Your task to perform on an android device: turn off data saver in the chrome app Image 0: 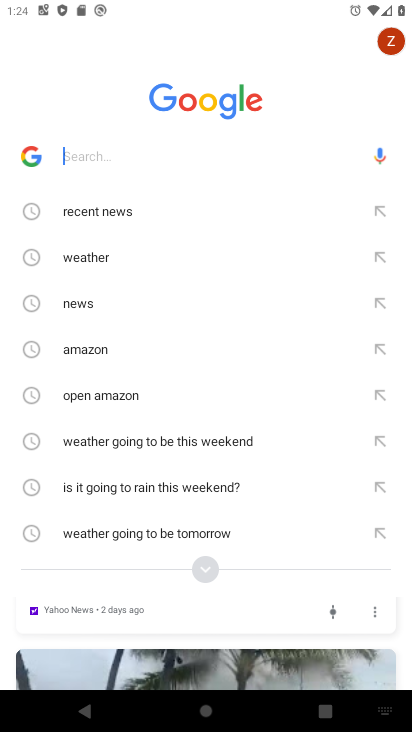
Step 0: press home button
Your task to perform on an android device: turn off data saver in the chrome app Image 1: 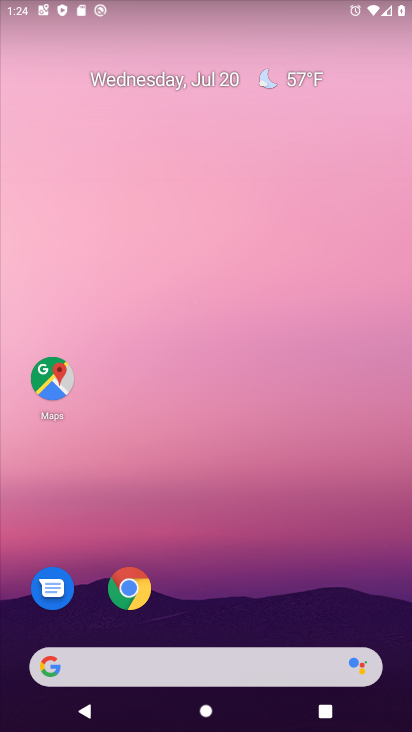
Step 1: click (125, 604)
Your task to perform on an android device: turn off data saver in the chrome app Image 2: 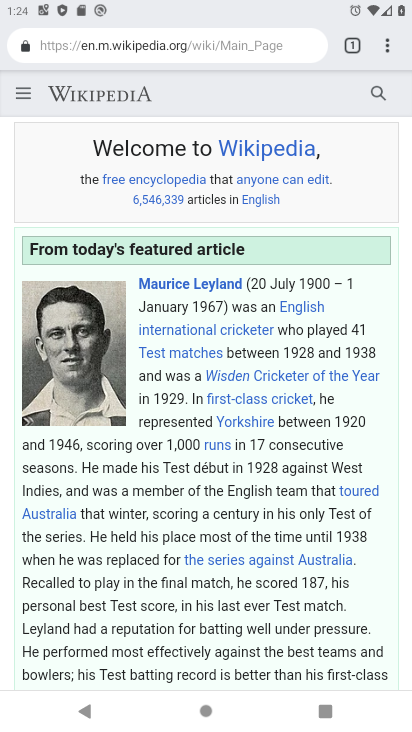
Step 2: press home button
Your task to perform on an android device: turn off data saver in the chrome app Image 3: 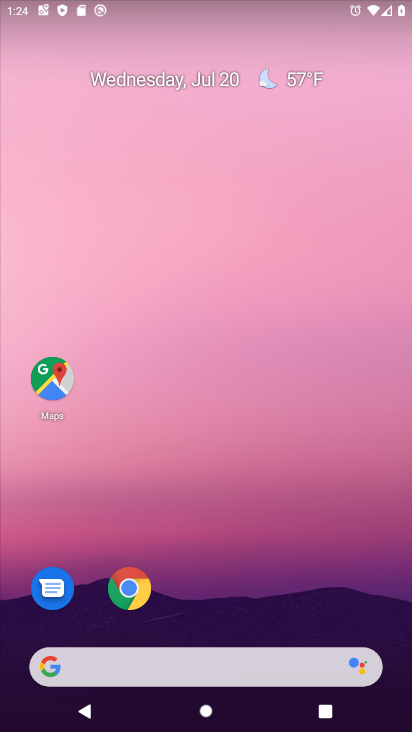
Step 3: click (122, 605)
Your task to perform on an android device: turn off data saver in the chrome app Image 4: 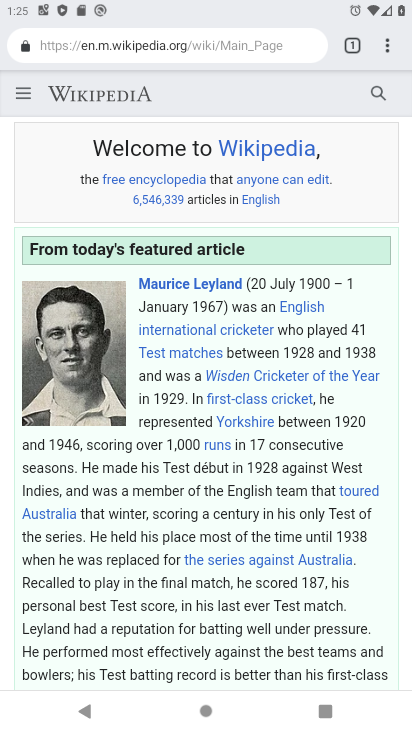
Step 4: press home button
Your task to perform on an android device: turn off data saver in the chrome app Image 5: 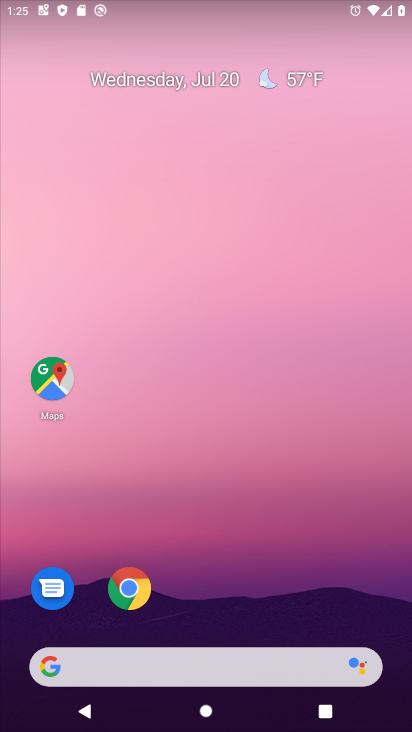
Step 5: click (123, 597)
Your task to perform on an android device: turn off data saver in the chrome app Image 6: 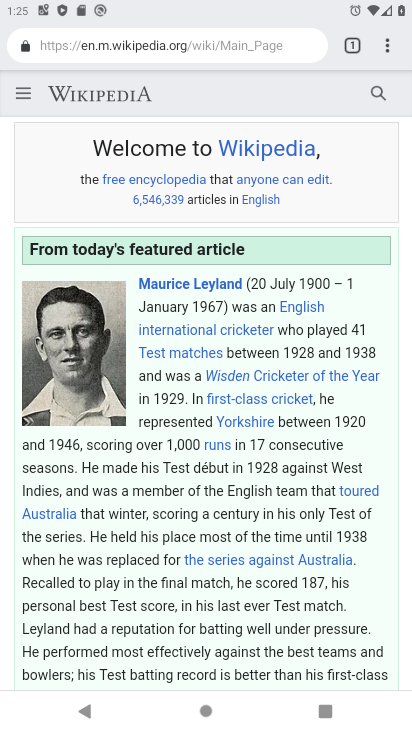
Step 6: click (382, 46)
Your task to perform on an android device: turn off data saver in the chrome app Image 7: 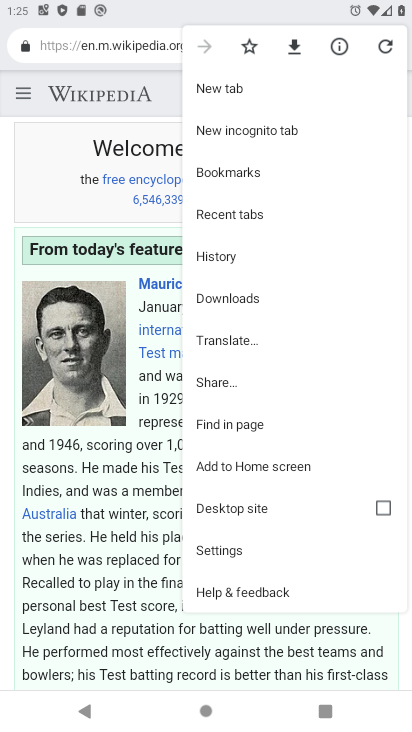
Step 7: click (214, 547)
Your task to perform on an android device: turn off data saver in the chrome app Image 8: 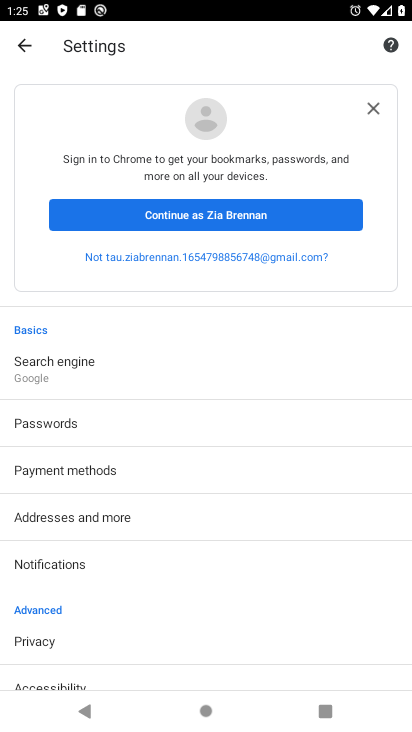
Step 8: drag from (15, 533) to (116, 135)
Your task to perform on an android device: turn off data saver in the chrome app Image 9: 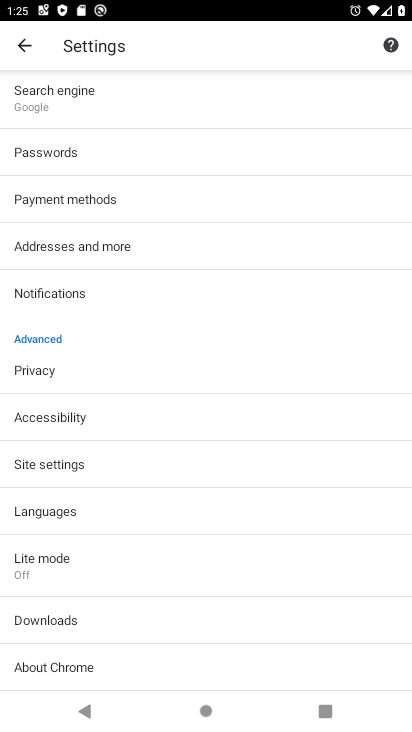
Step 9: click (41, 563)
Your task to perform on an android device: turn off data saver in the chrome app Image 10: 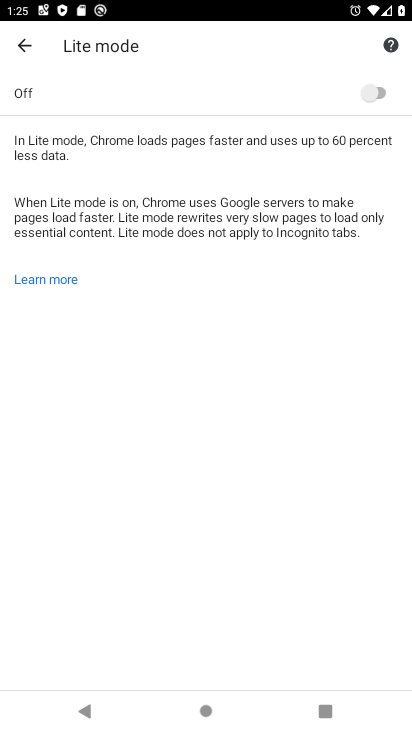
Step 10: task complete